Your task to perform on an android device: search for starred emails in the gmail app Image 0: 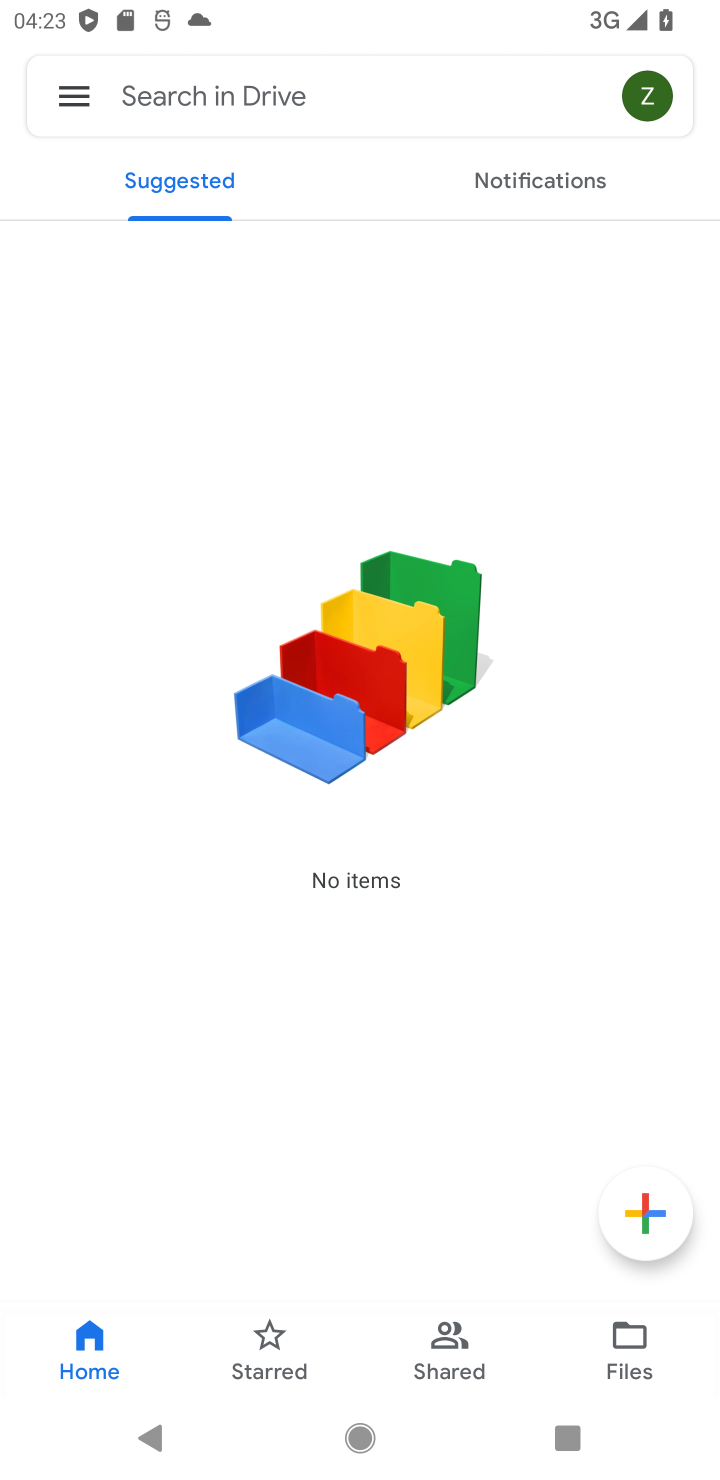
Step 0: press home button
Your task to perform on an android device: search for starred emails in the gmail app Image 1: 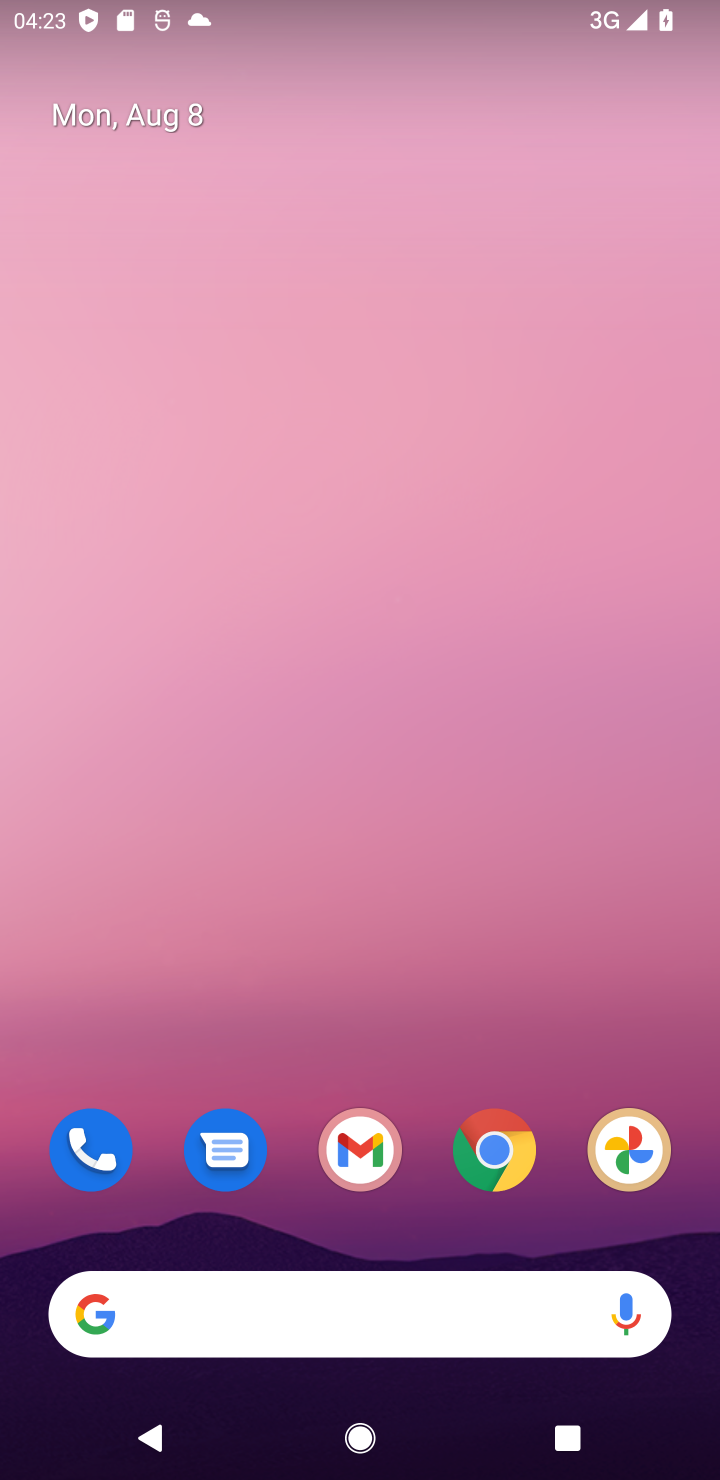
Step 1: click (353, 1146)
Your task to perform on an android device: search for starred emails in the gmail app Image 2: 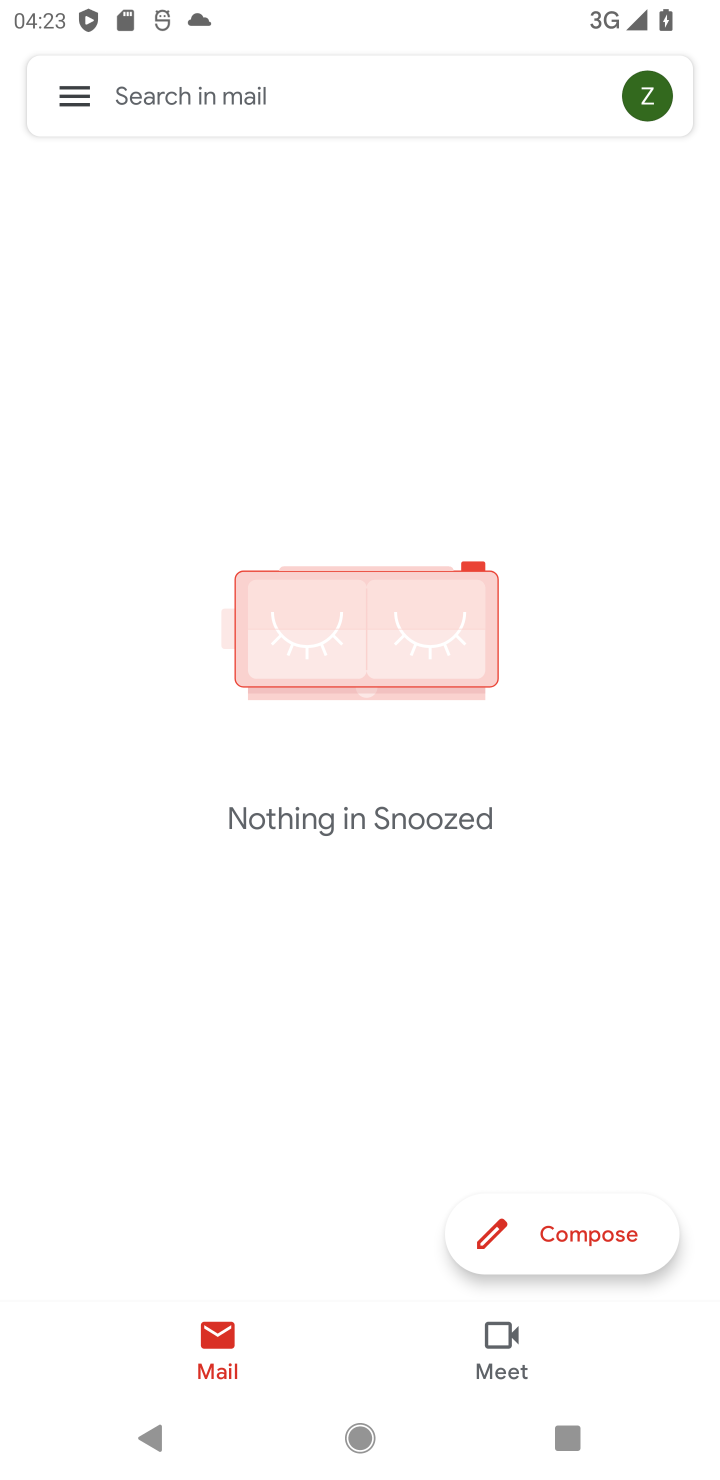
Step 2: click (67, 69)
Your task to perform on an android device: search for starred emails in the gmail app Image 3: 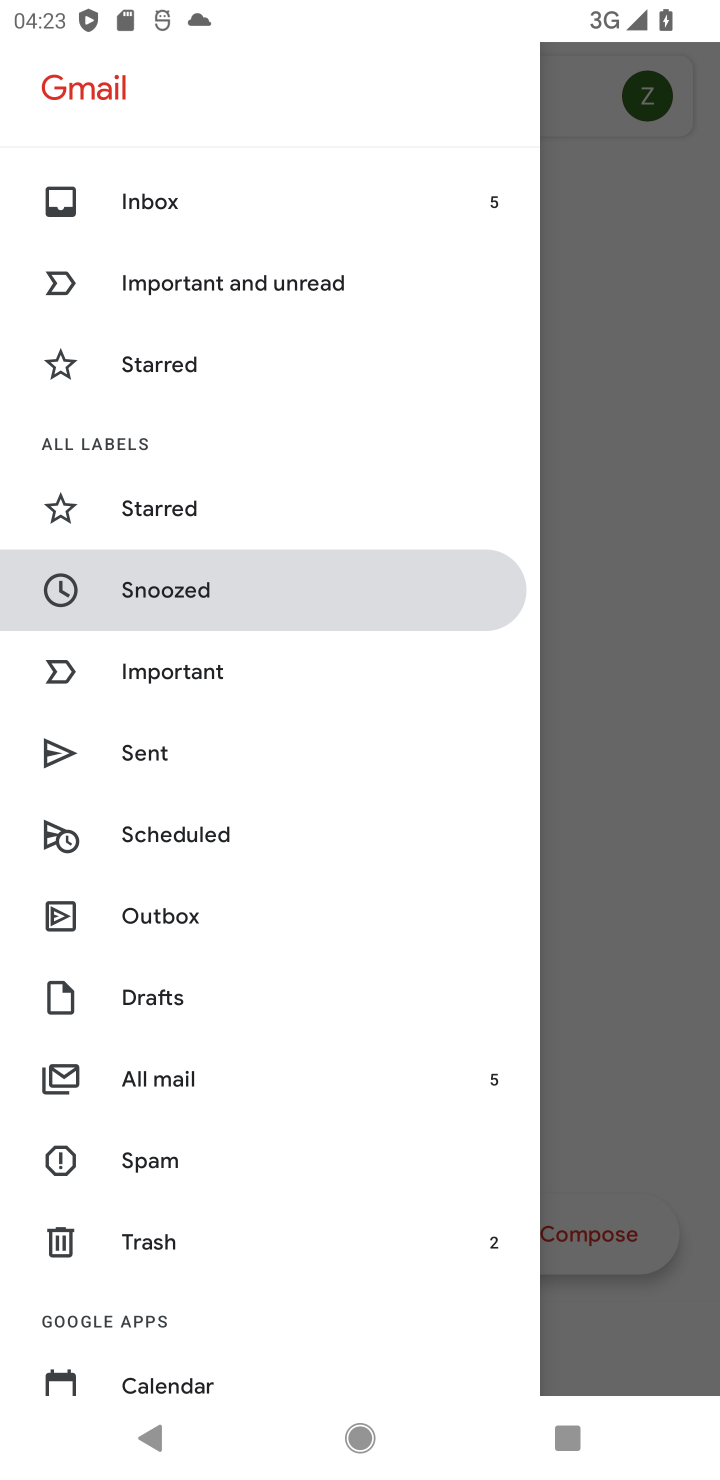
Step 3: click (184, 523)
Your task to perform on an android device: search for starred emails in the gmail app Image 4: 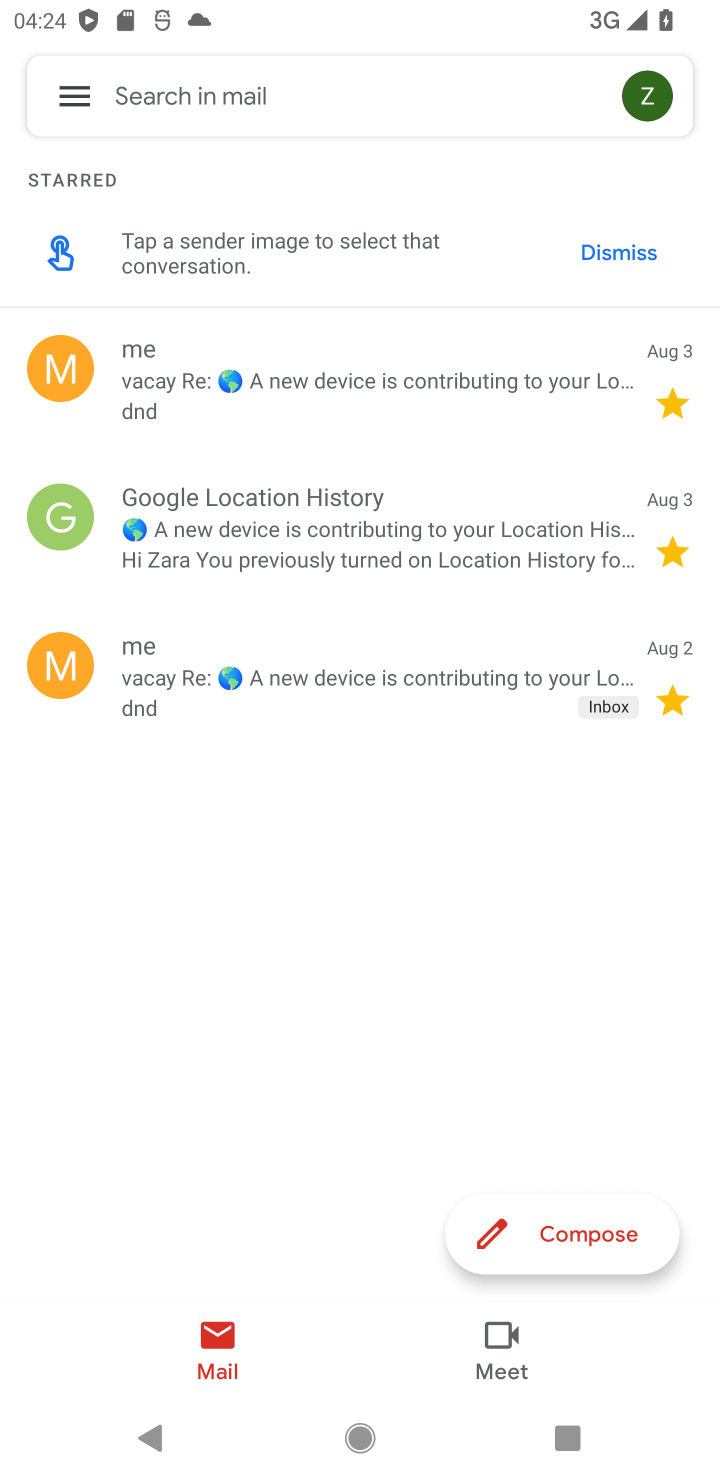
Step 4: task complete